Your task to perform on an android device: open chrome privacy settings Image 0: 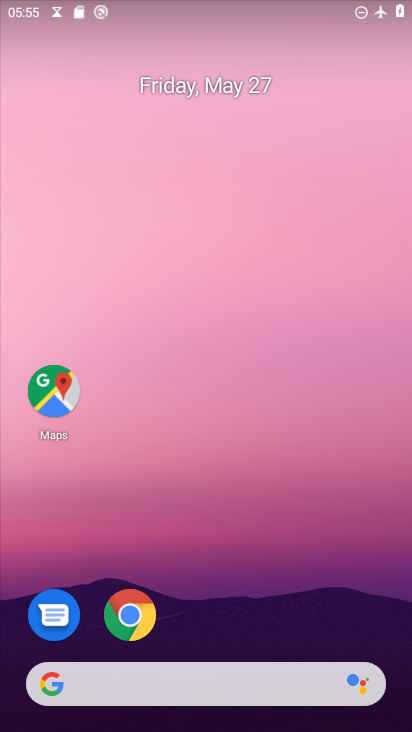
Step 0: click (142, 622)
Your task to perform on an android device: open chrome privacy settings Image 1: 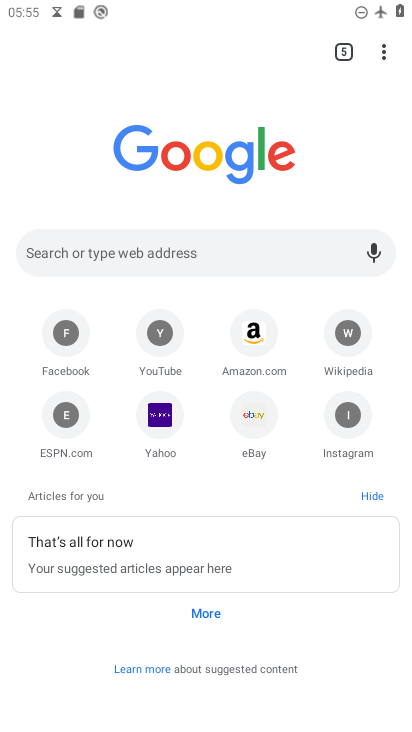
Step 1: click (382, 48)
Your task to perform on an android device: open chrome privacy settings Image 2: 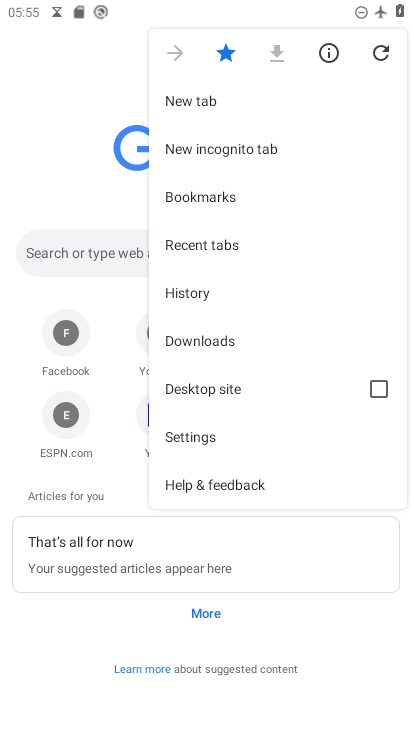
Step 2: click (208, 429)
Your task to perform on an android device: open chrome privacy settings Image 3: 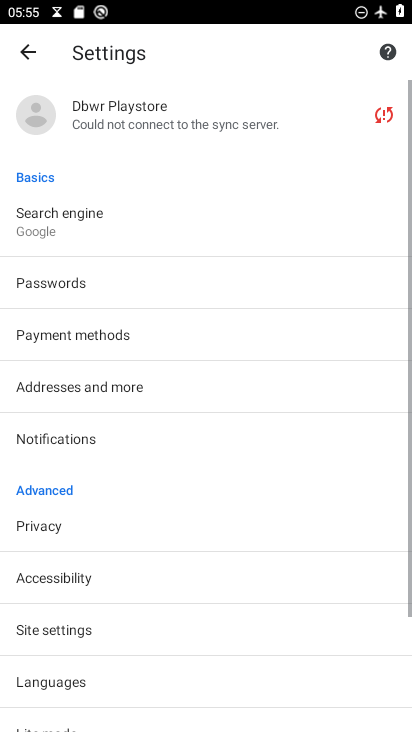
Step 3: click (113, 522)
Your task to perform on an android device: open chrome privacy settings Image 4: 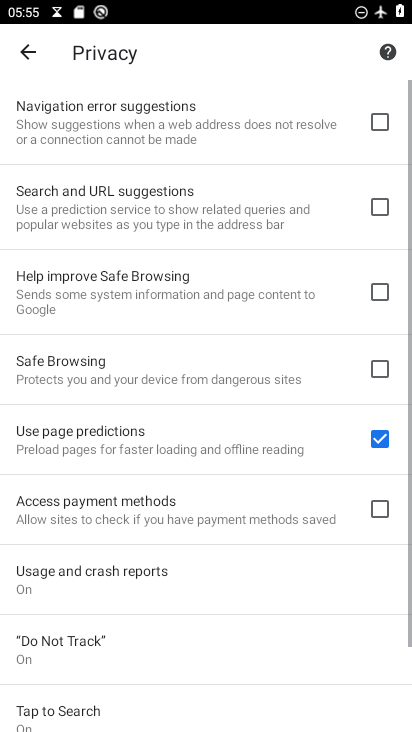
Step 4: task complete